Your task to perform on an android device: add a contact Image 0: 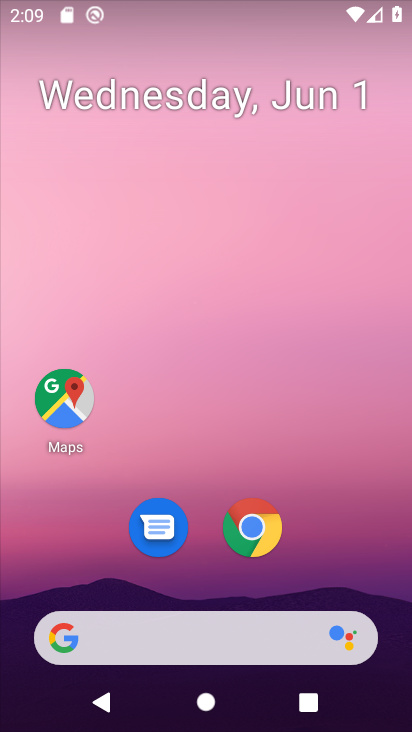
Step 0: drag from (199, 560) to (214, 226)
Your task to perform on an android device: add a contact Image 1: 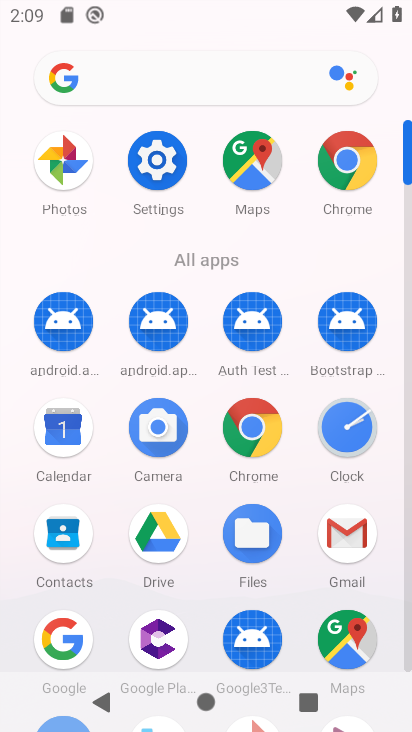
Step 1: click (52, 546)
Your task to perform on an android device: add a contact Image 2: 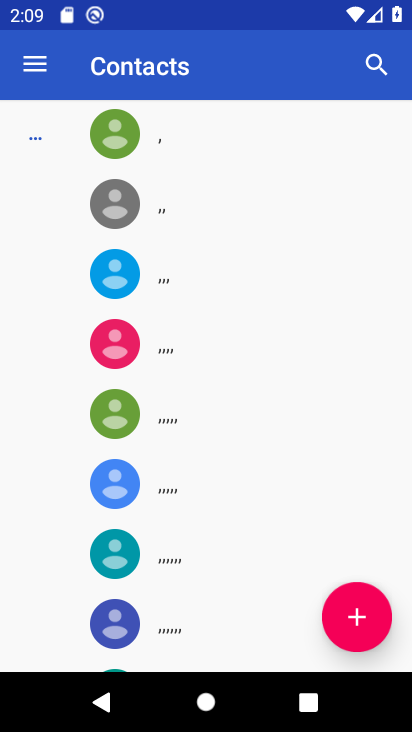
Step 2: click (357, 605)
Your task to perform on an android device: add a contact Image 3: 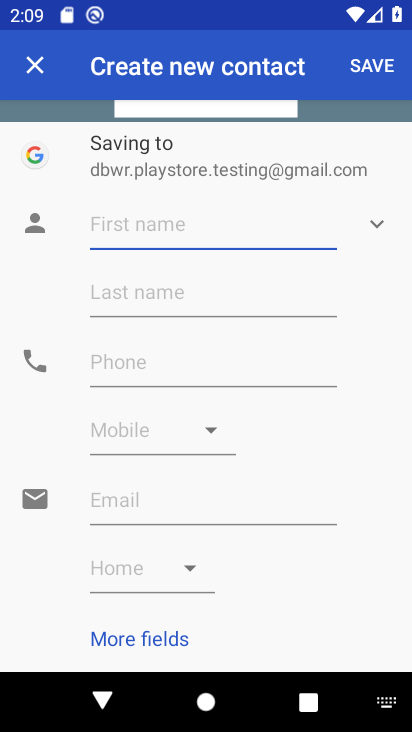
Step 3: type ""
Your task to perform on an android device: add a contact Image 4: 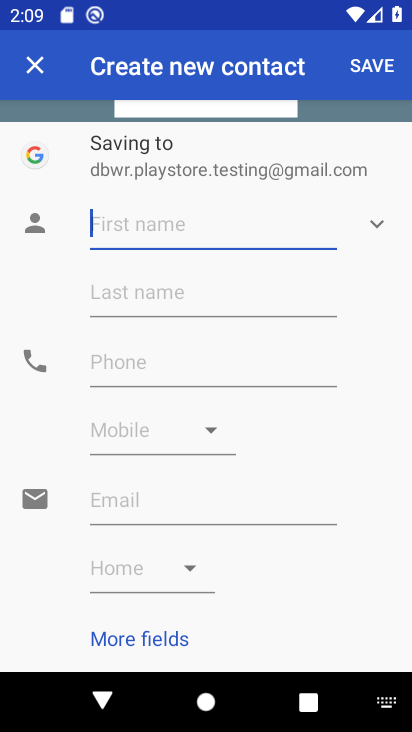
Step 4: type "fest"
Your task to perform on an android device: add a contact Image 5: 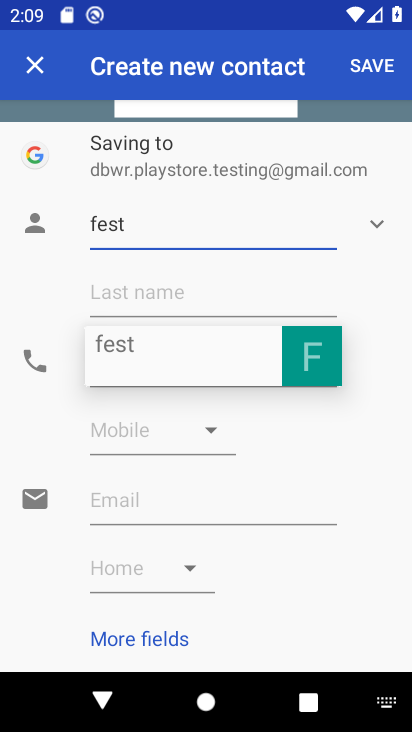
Step 5: type "as"
Your task to perform on an android device: add a contact Image 6: 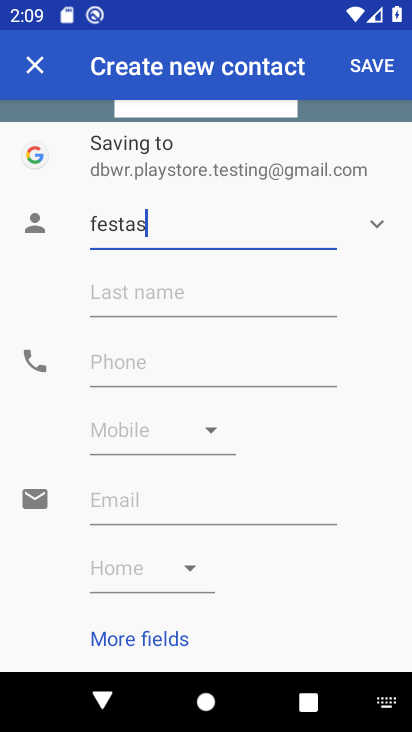
Step 6: click (361, 69)
Your task to perform on an android device: add a contact Image 7: 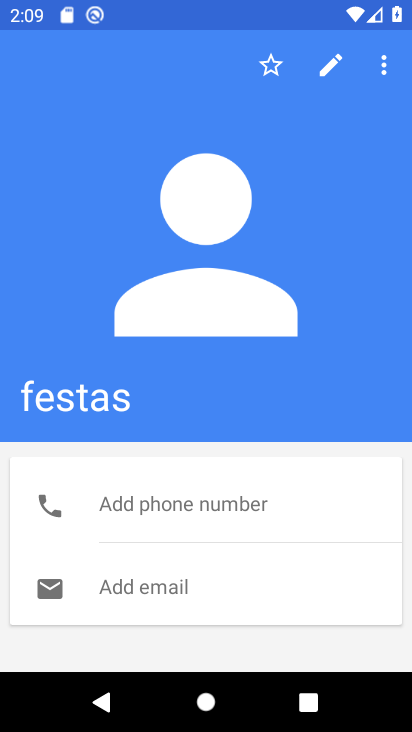
Step 7: task complete